Your task to perform on an android device: What's on my calendar tomorrow? Image 0: 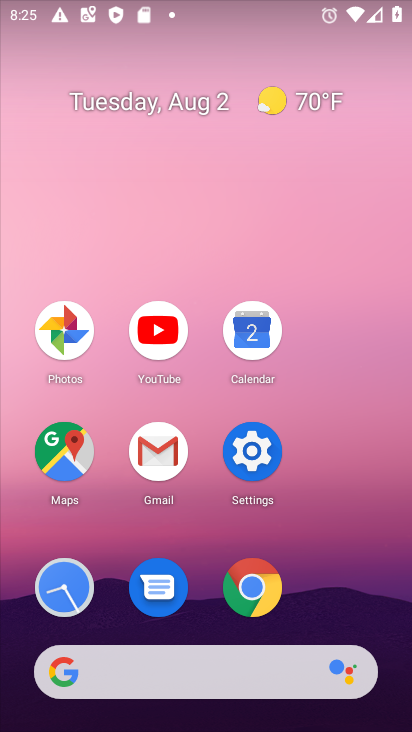
Step 0: click (254, 331)
Your task to perform on an android device: What's on my calendar tomorrow? Image 1: 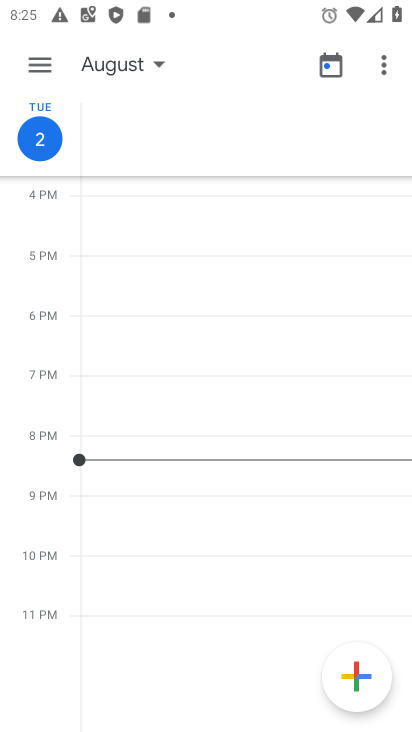
Step 1: click (36, 62)
Your task to perform on an android device: What's on my calendar tomorrow? Image 2: 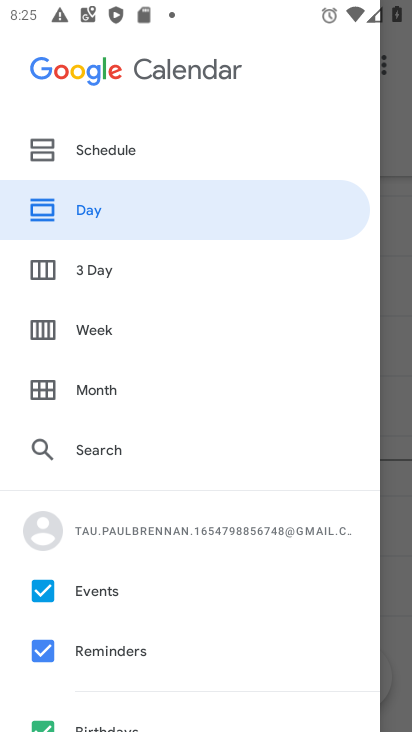
Step 2: click (86, 207)
Your task to perform on an android device: What's on my calendar tomorrow? Image 3: 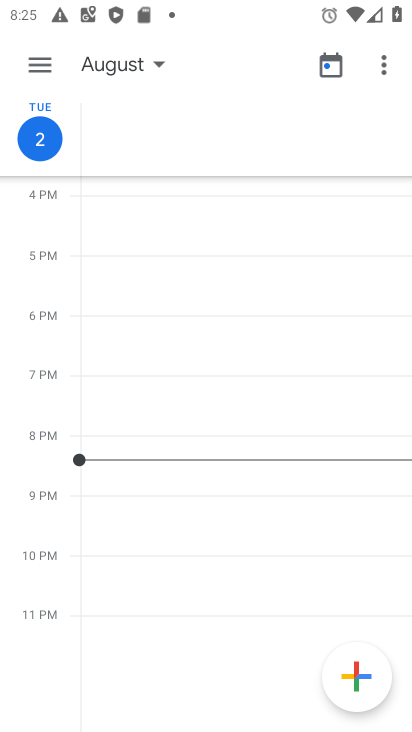
Step 3: click (143, 62)
Your task to perform on an android device: What's on my calendar tomorrow? Image 4: 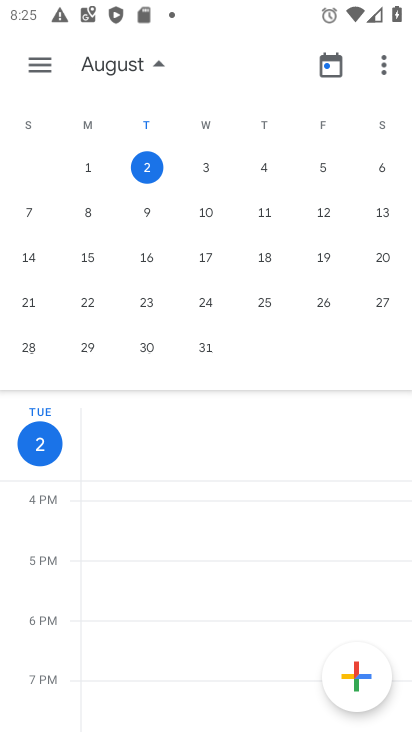
Step 4: click (206, 166)
Your task to perform on an android device: What's on my calendar tomorrow? Image 5: 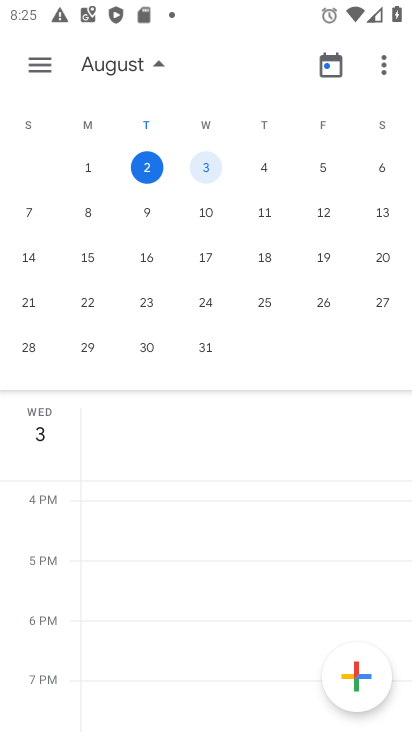
Step 5: task complete